Your task to perform on an android device: delete location history Image 0: 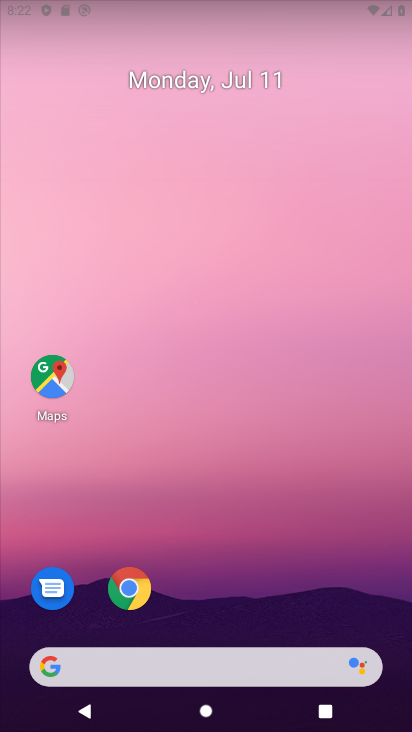
Step 0: click (55, 383)
Your task to perform on an android device: delete location history Image 1: 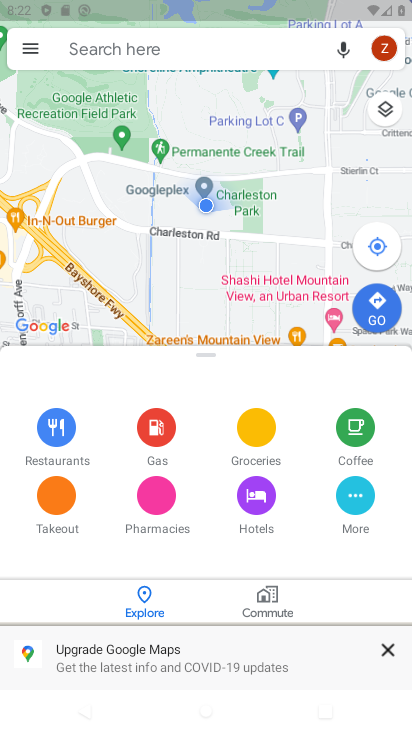
Step 1: click (31, 39)
Your task to perform on an android device: delete location history Image 2: 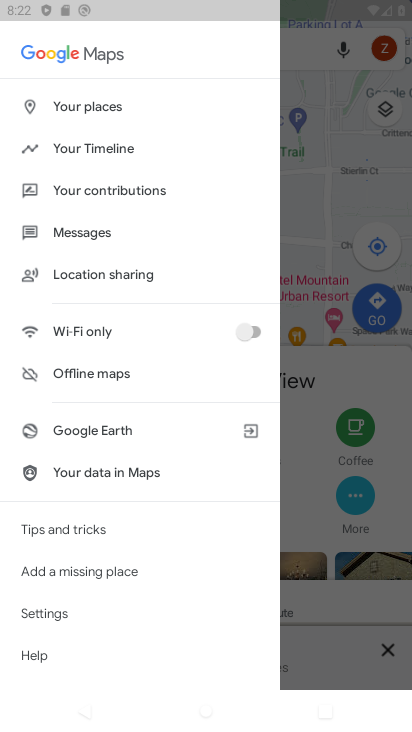
Step 2: click (124, 150)
Your task to perform on an android device: delete location history Image 3: 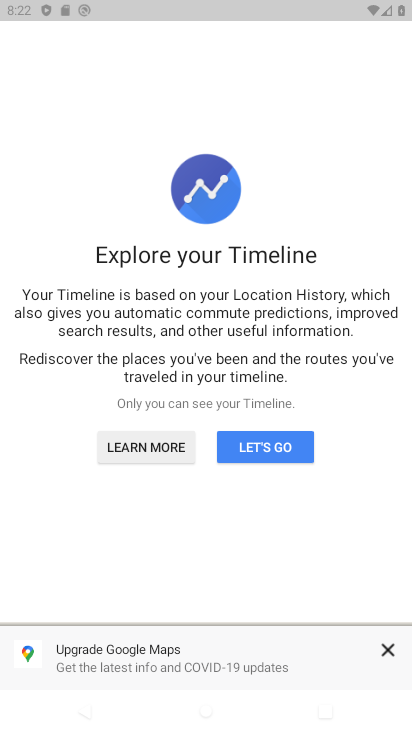
Step 3: click (398, 646)
Your task to perform on an android device: delete location history Image 4: 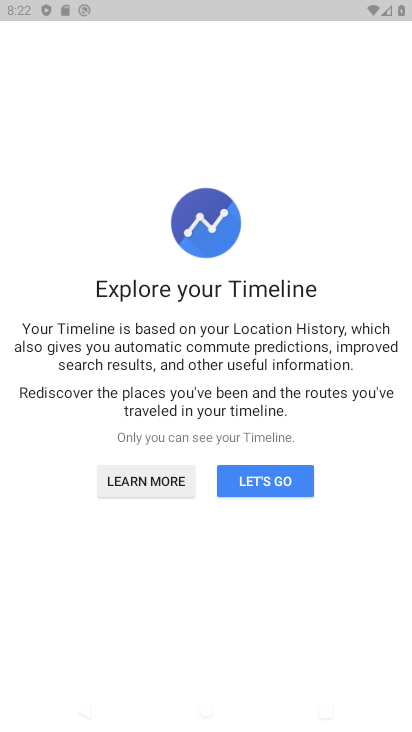
Step 4: click (265, 486)
Your task to perform on an android device: delete location history Image 5: 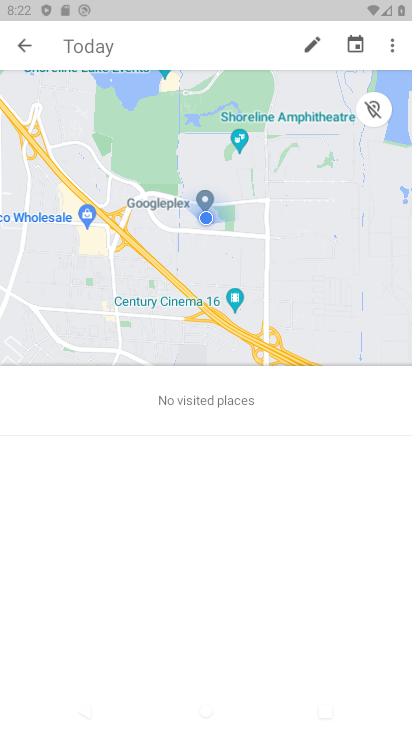
Step 5: click (390, 41)
Your task to perform on an android device: delete location history Image 6: 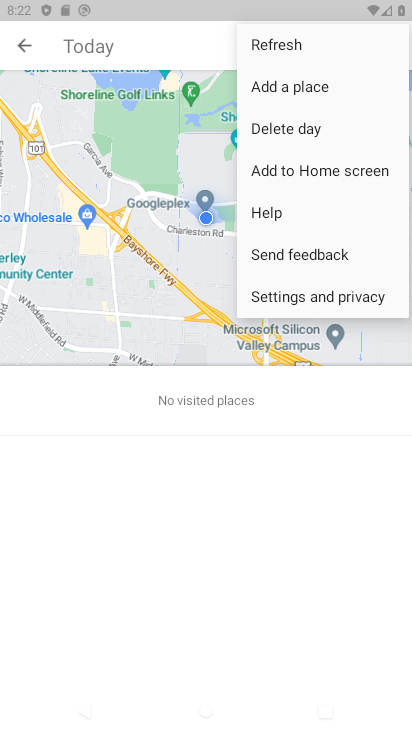
Step 6: click (339, 300)
Your task to perform on an android device: delete location history Image 7: 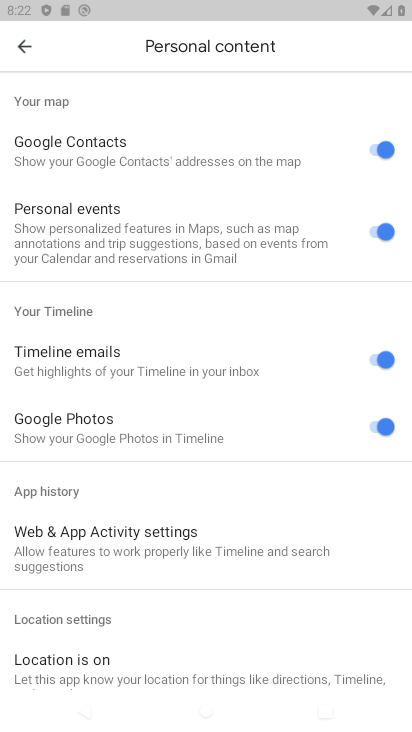
Step 7: drag from (269, 598) to (301, 130)
Your task to perform on an android device: delete location history Image 8: 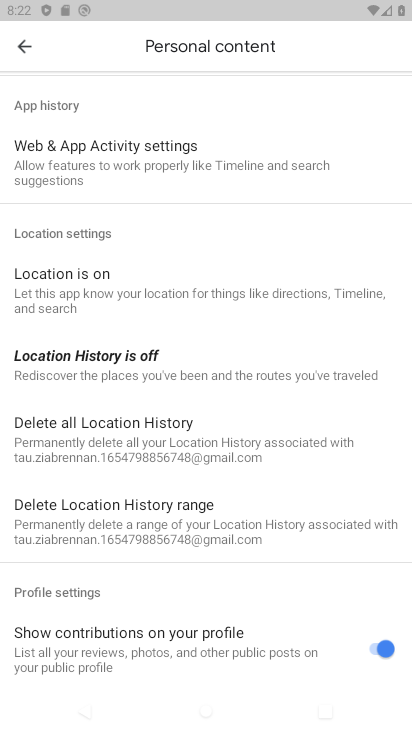
Step 8: click (187, 433)
Your task to perform on an android device: delete location history Image 9: 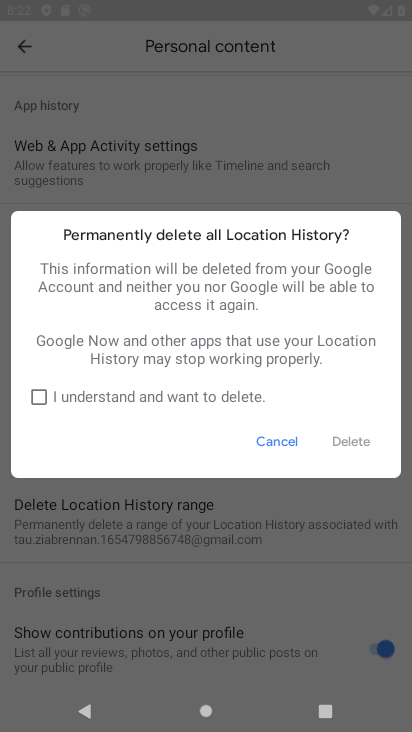
Step 9: click (31, 390)
Your task to perform on an android device: delete location history Image 10: 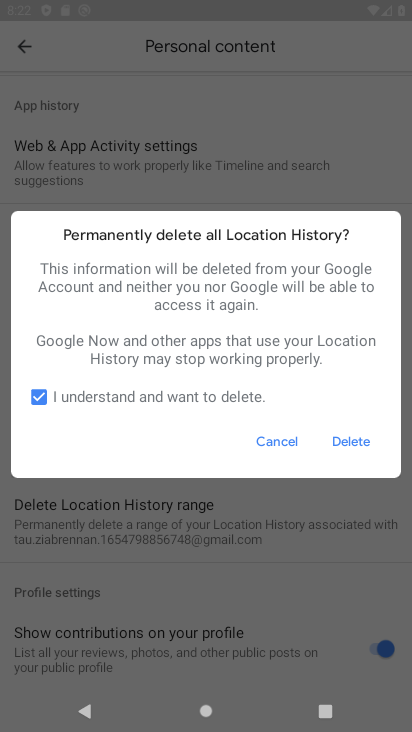
Step 10: click (358, 441)
Your task to perform on an android device: delete location history Image 11: 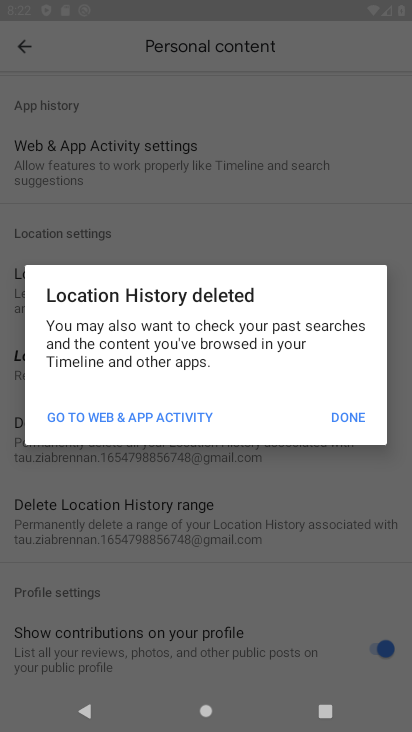
Step 11: click (347, 418)
Your task to perform on an android device: delete location history Image 12: 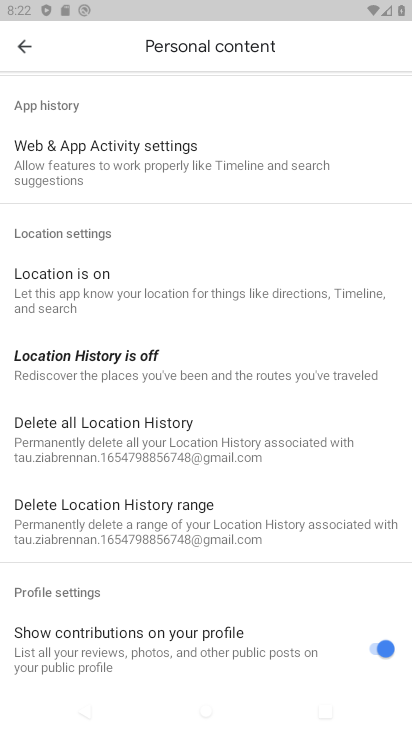
Step 12: task complete